Your task to perform on an android device: Open Chrome and go to settings Image 0: 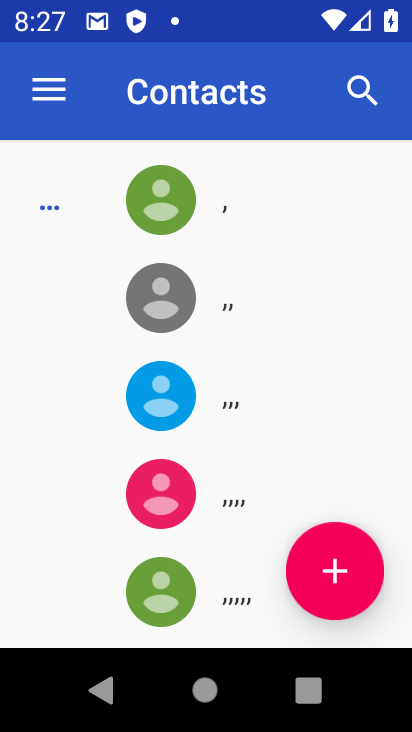
Step 0: press home button
Your task to perform on an android device: Open Chrome and go to settings Image 1: 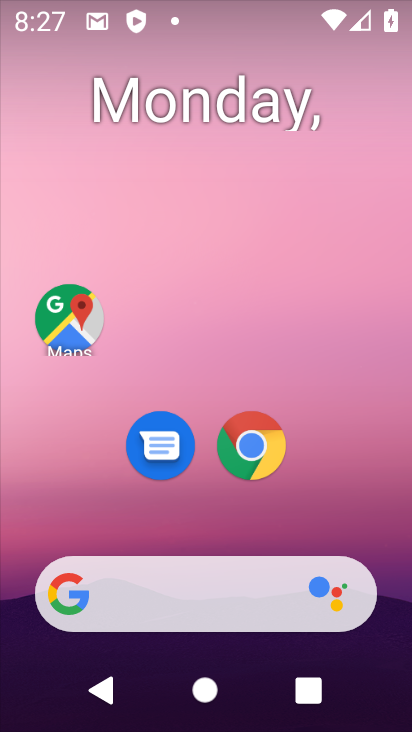
Step 1: click (264, 441)
Your task to perform on an android device: Open Chrome and go to settings Image 2: 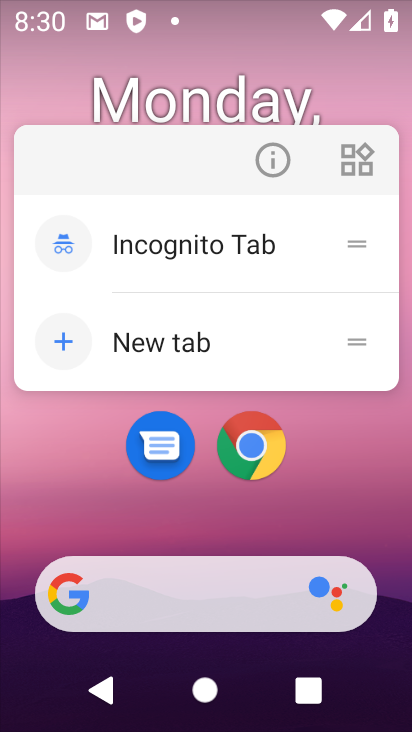
Step 2: click (231, 436)
Your task to perform on an android device: Open Chrome and go to settings Image 3: 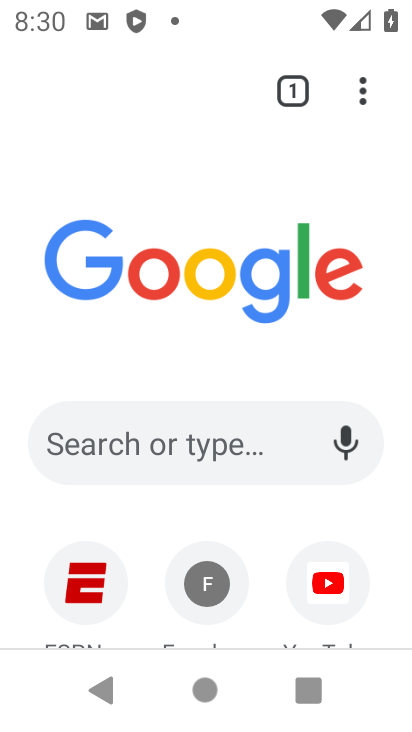
Step 3: click (356, 88)
Your task to perform on an android device: Open Chrome and go to settings Image 4: 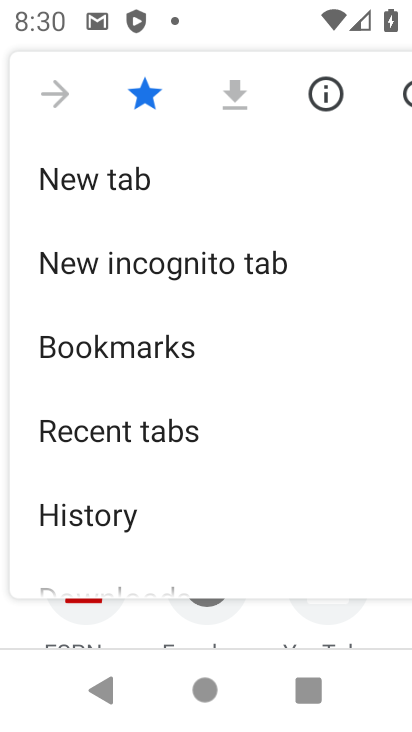
Step 4: drag from (241, 486) to (319, 11)
Your task to perform on an android device: Open Chrome and go to settings Image 5: 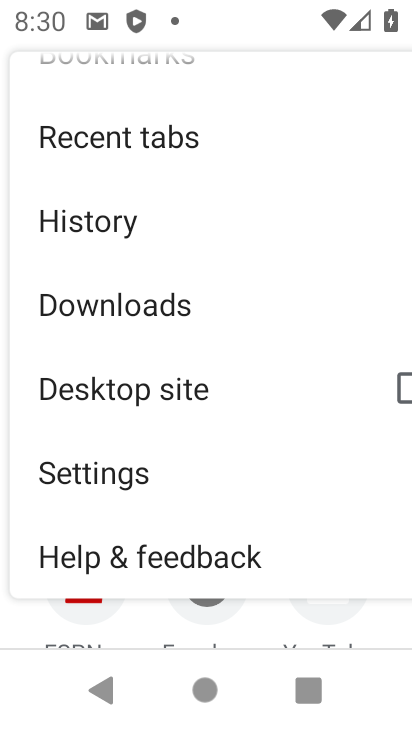
Step 5: click (128, 465)
Your task to perform on an android device: Open Chrome and go to settings Image 6: 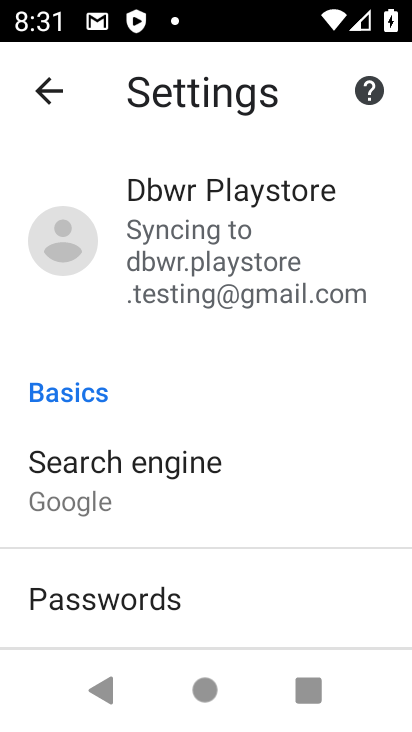
Step 6: task complete